Your task to perform on an android device: Open CNN.com Image 0: 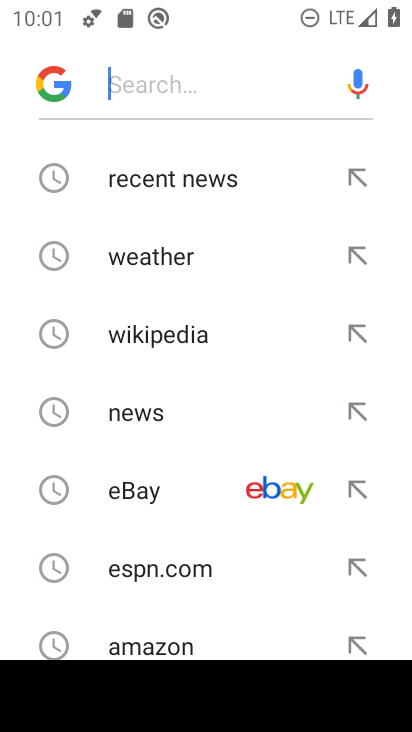
Step 0: type "cnn.com"
Your task to perform on an android device: Open CNN.com Image 1: 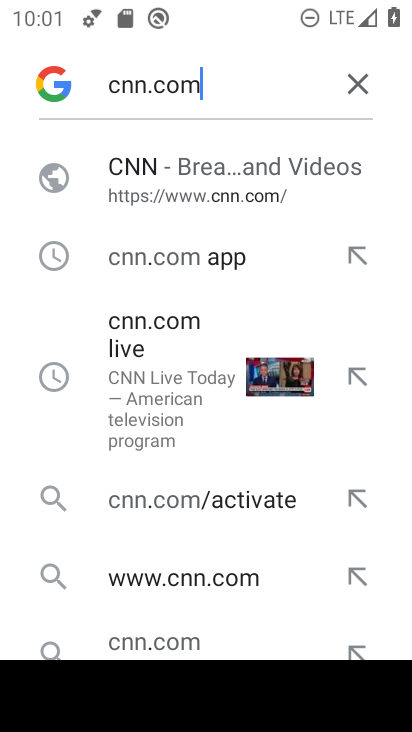
Step 1: click (130, 167)
Your task to perform on an android device: Open CNN.com Image 2: 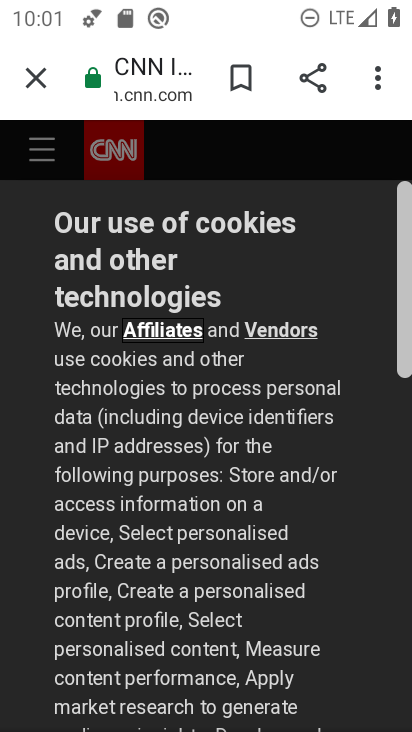
Step 2: task complete